Your task to perform on an android device: Open settings Image 0: 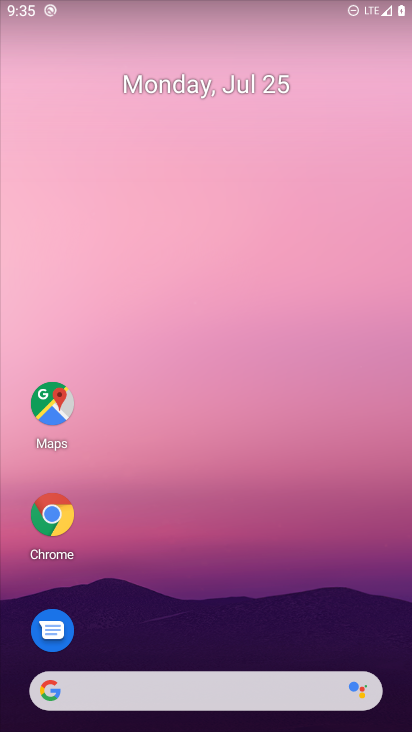
Step 0: drag from (47, 554) to (138, 183)
Your task to perform on an android device: Open settings Image 1: 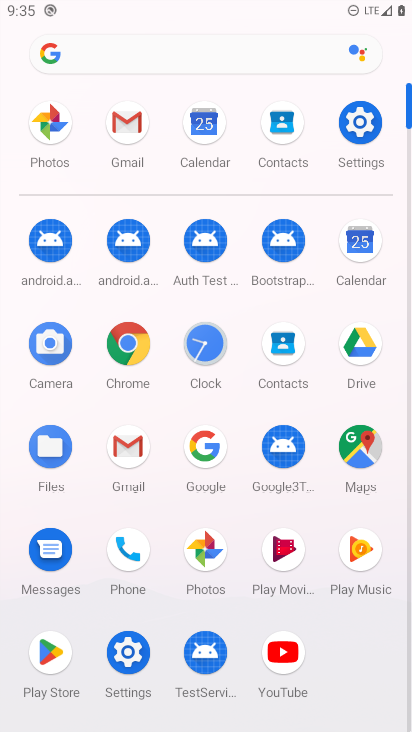
Step 1: click (117, 662)
Your task to perform on an android device: Open settings Image 2: 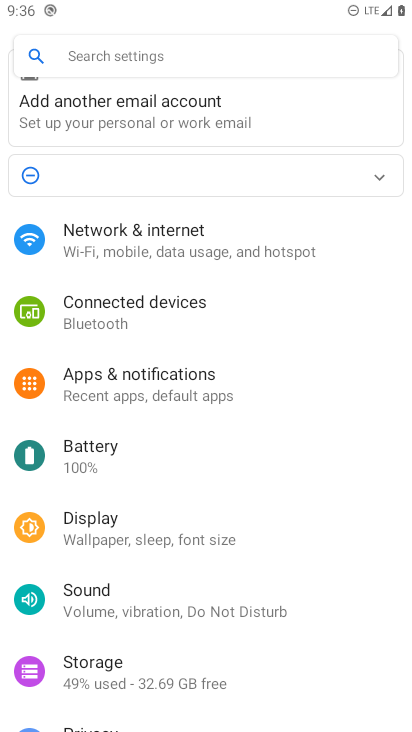
Step 2: task complete